Your task to perform on an android device: turn pop-ups off in chrome Image 0: 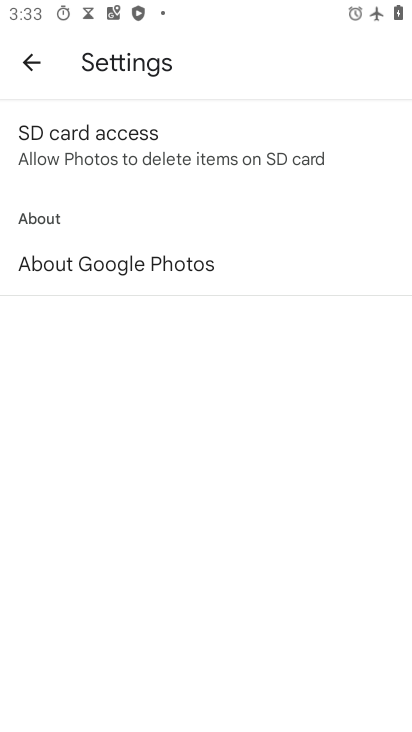
Step 0: press back button
Your task to perform on an android device: turn pop-ups off in chrome Image 1: 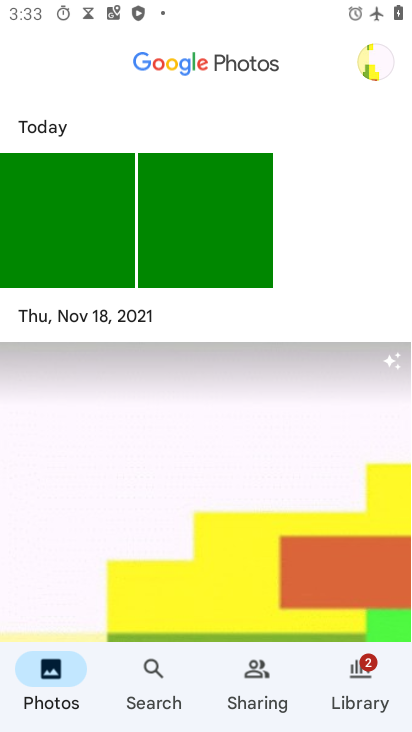
Step 1: press home button
Your task to perform on an android device: turn pop-ups off in chrome Image 2: 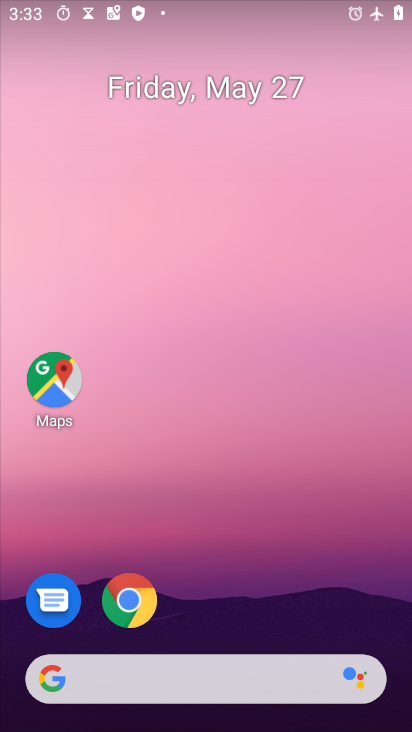
Step 2: drag from (326, 551) to (265, 69)
Your task to perform on an android device: turn pop-ups off in chrome Image 3: 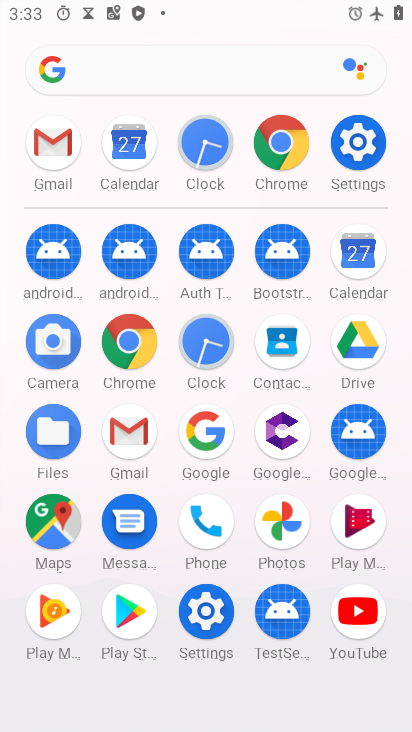
Step 3: drag from (11, 495) to (12, 145)
Your task to perform on an android device: turn pop-ups off in chrome Image 4: 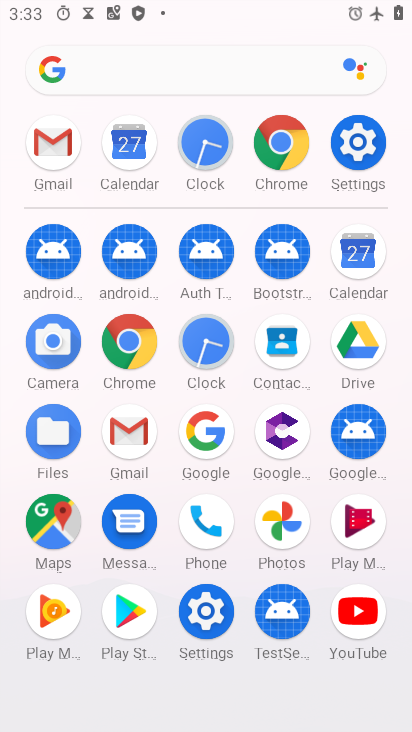
Step 4: click (124, 342)
Your task to perform on an android device: turn pop-ups off in chrome Image 5: 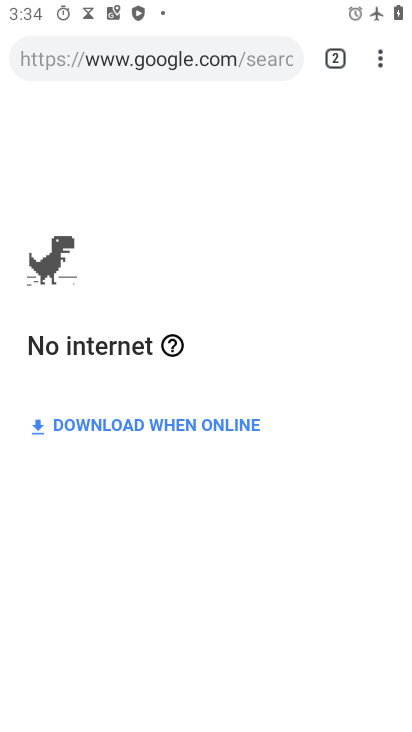
Step 5: drag from (378, 60) to (184, 626)
Your task to perform on an android device: turn pop-ups off in chrome Image 6: 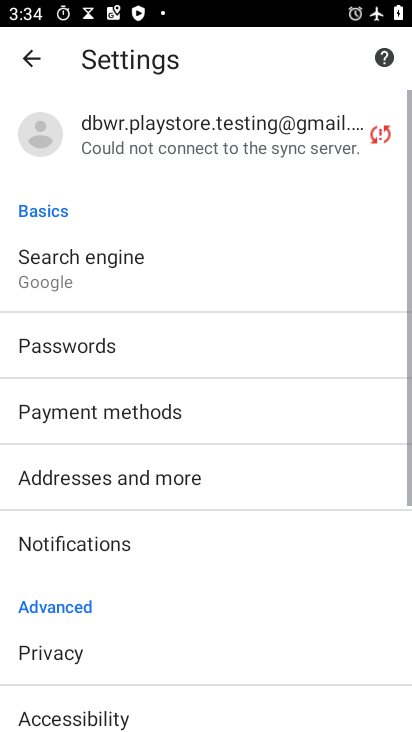
Step 6: drag from (291, 530) to (305, 173)
Your task to perform on an android device: turn pop-ups off in chrome Image 7: 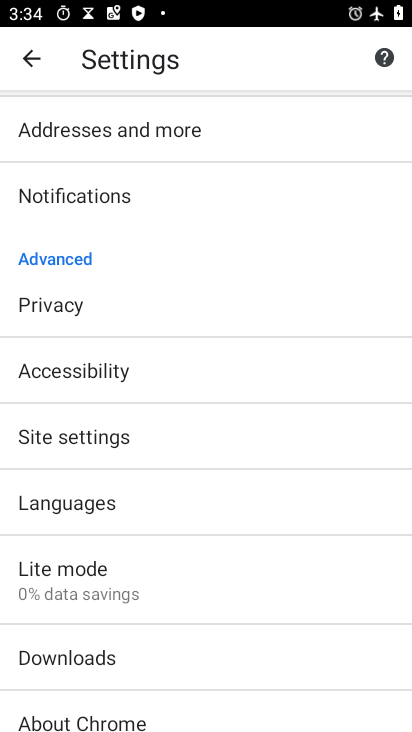
Step 7: drag from (196, 592) to (251, 205)
Your task to perform on an android device: turn pop-ups off in chrome Image 8: 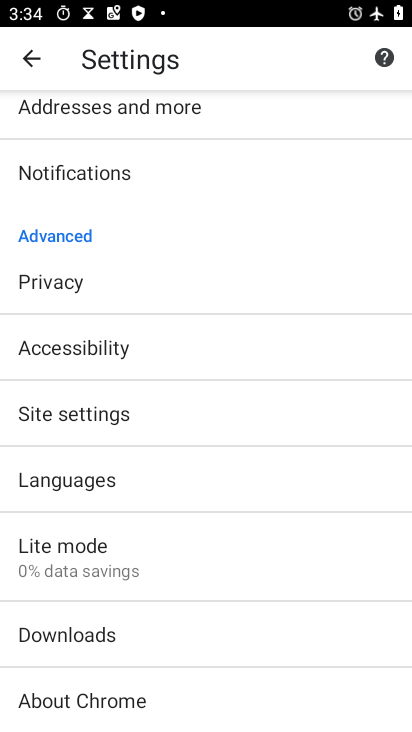
Step 8: click (138, 405)
Your task to perform on an android device: turn pop-ups off in chrome Image 9: 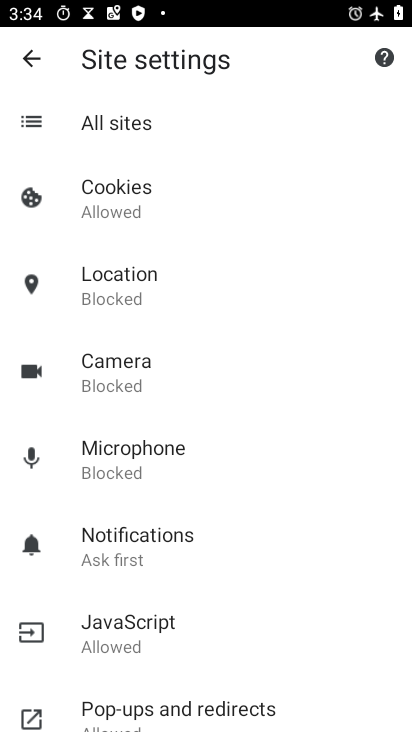
Step 9: drag from (217, 624) to (248, 280)
Your task to perform on an android device: turn pop-ups off in chrome Image 10: 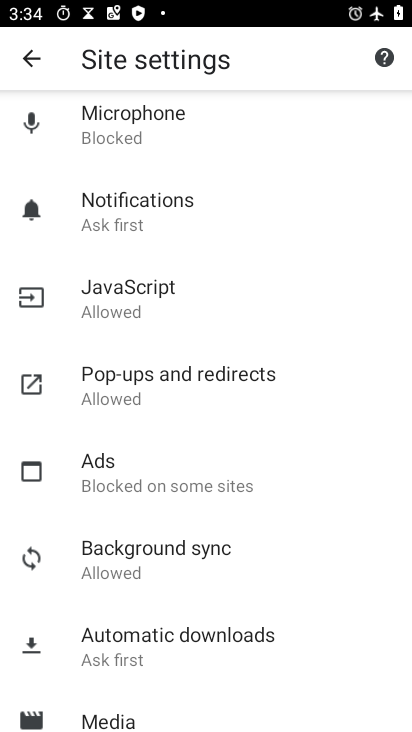
Step 10: click (179, 347)
Your task to perform on an android device: turn pop-ups off in chrome Image 11: 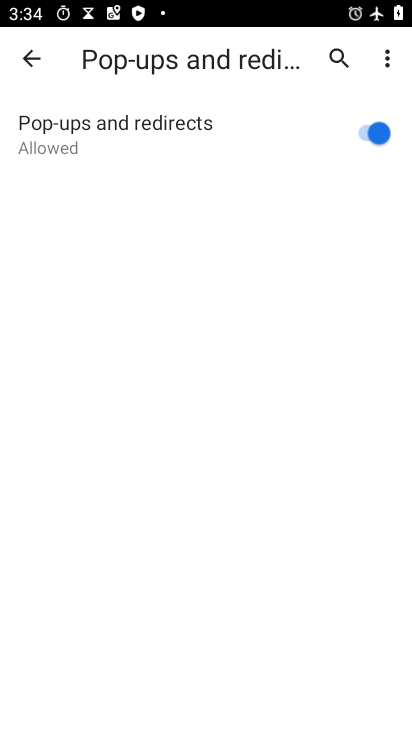
Step 11: click (368, 122)
Your task to perform on an android device: turn pop-ups off in chrome Image 12: 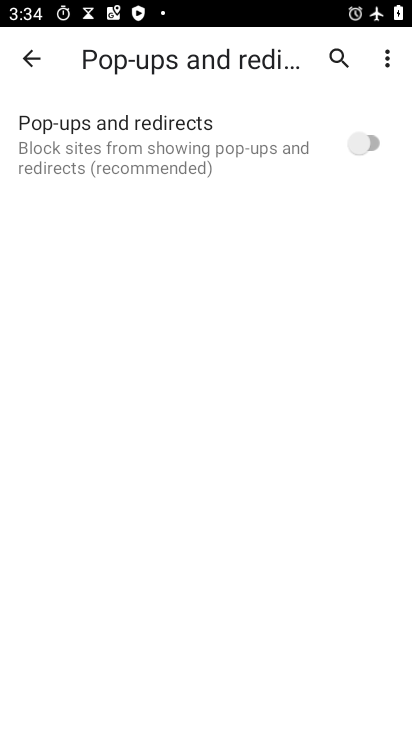
Step 12: task complete